Your task to perform on an android device: How much does a 2 bedroom apartment rent for in Washington DC? Image 0: 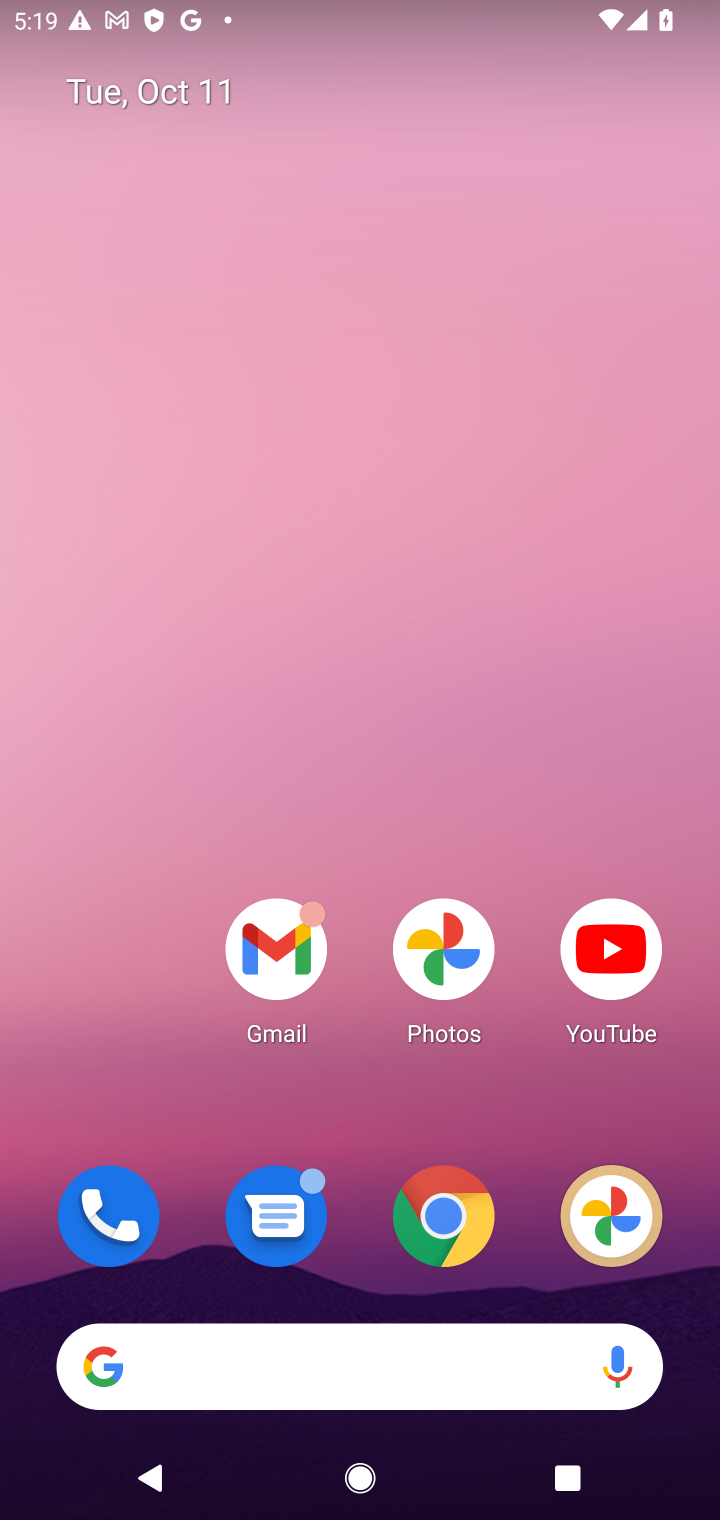
Step 0: click (450, 1222)
Your task to perform on an android device: How much does a 2 bedroom apartment rent for in Washington DC? Image 1: 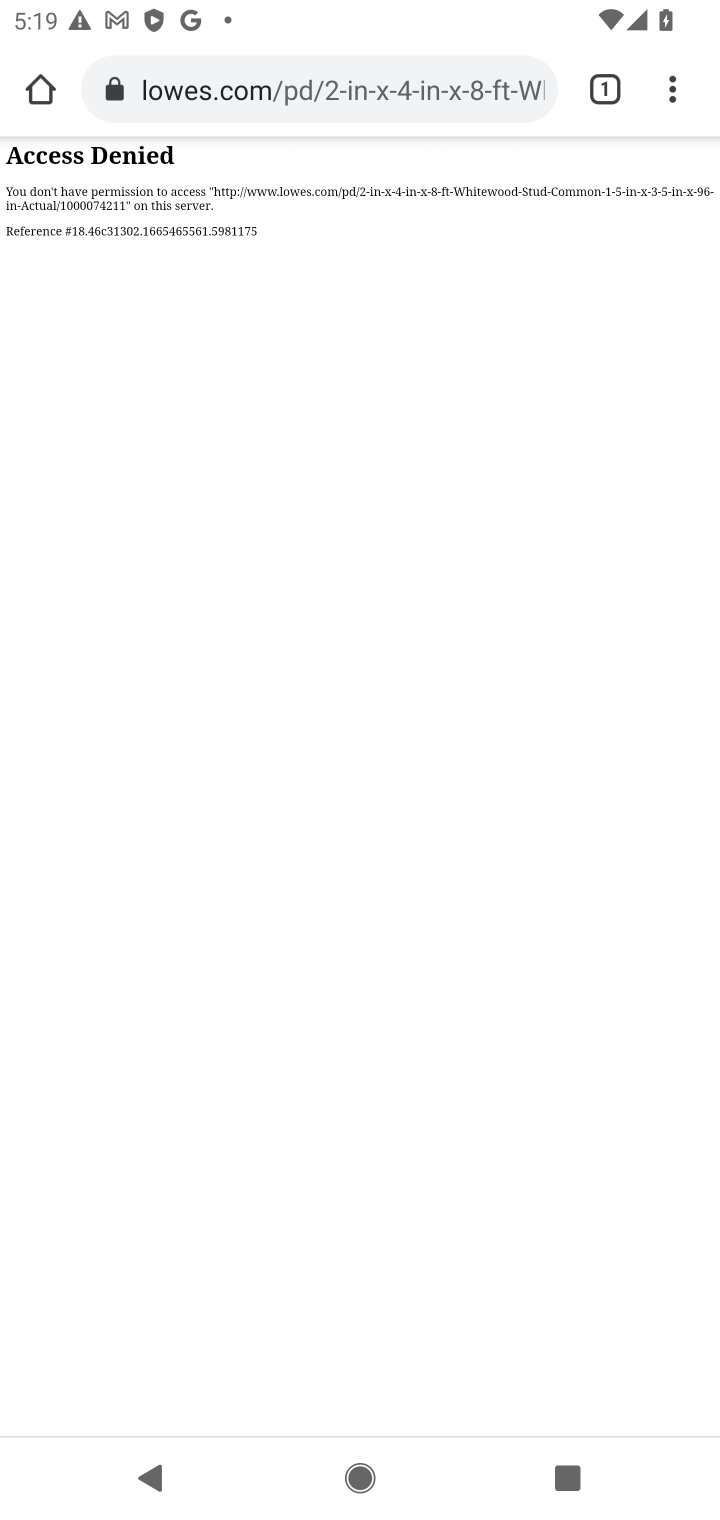
Step 1: click (366, 72)
Your task to perform on an android device: How much does a 2 bedroom apartment rent for in Washington DC? Image 2: 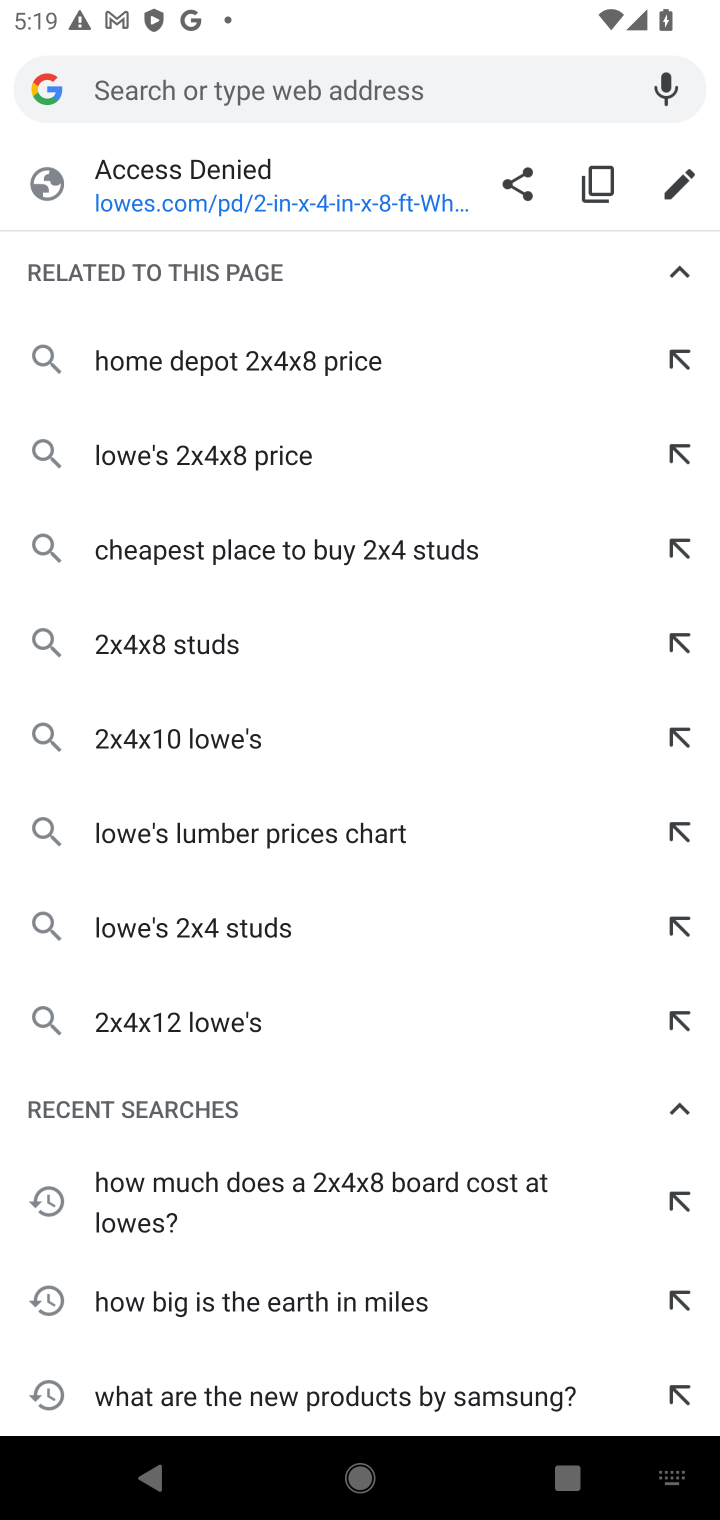
Step 2: press enter
Your task to perform on an android device: How much does a 2 bedroom apartment rent for in Washington DC? Image 3: 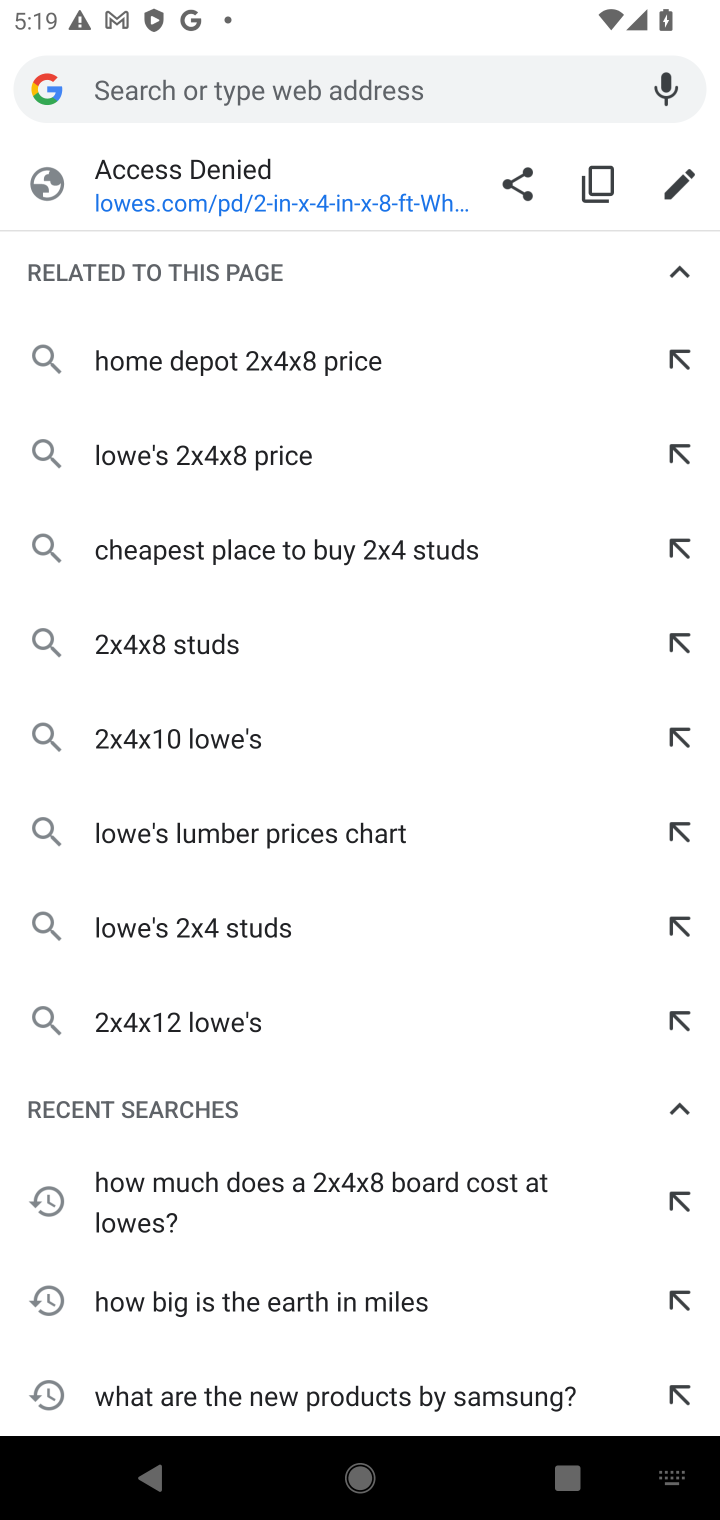
Step 3: type "How much does a 2 bedroom apartment rent for in Washington DC?"
Your task to perform on an android device: How much does a 2 bedroom apartment rent for in Washington DC? Image 4: 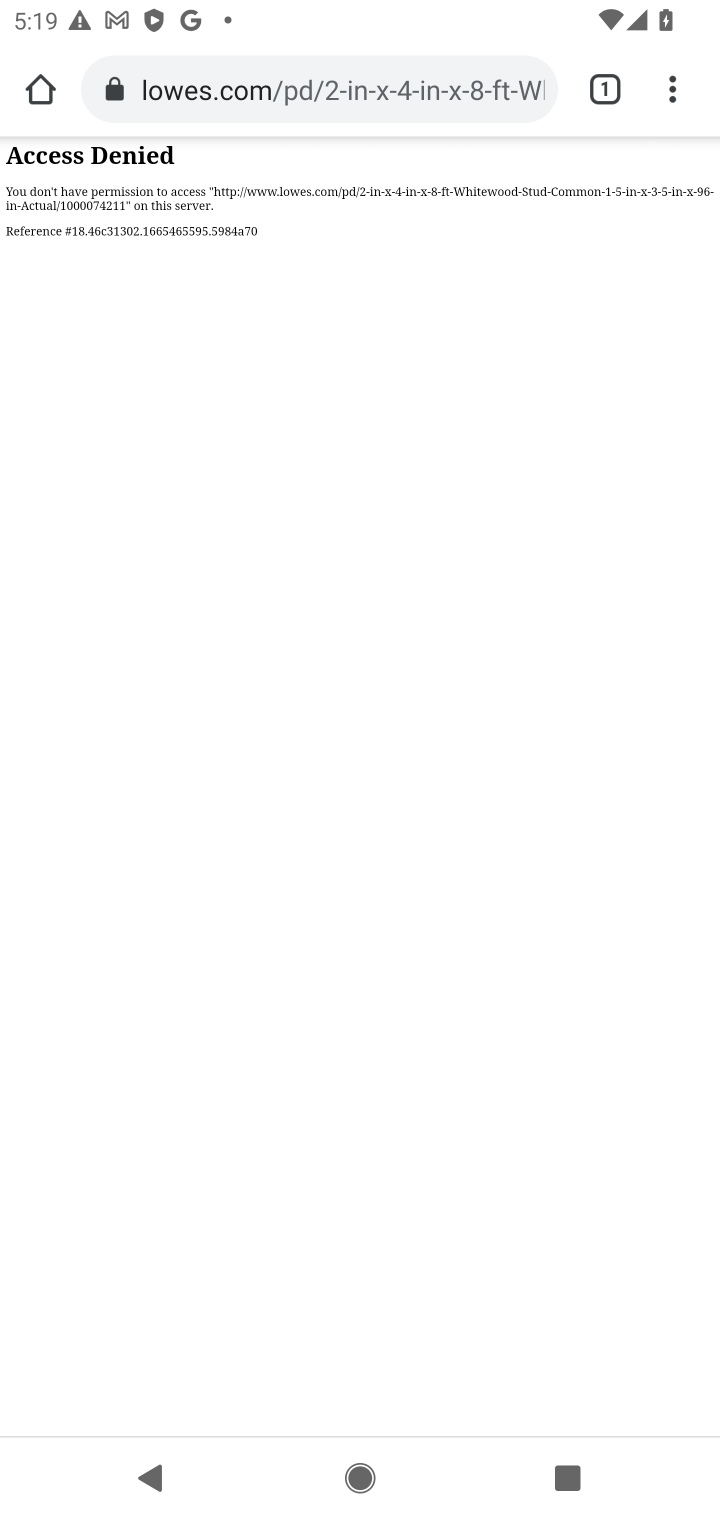
Step 4: type ""
Your task to perform on an android device: How much does a 2 bedroom apartment rent for in Washington DC? Image 5: 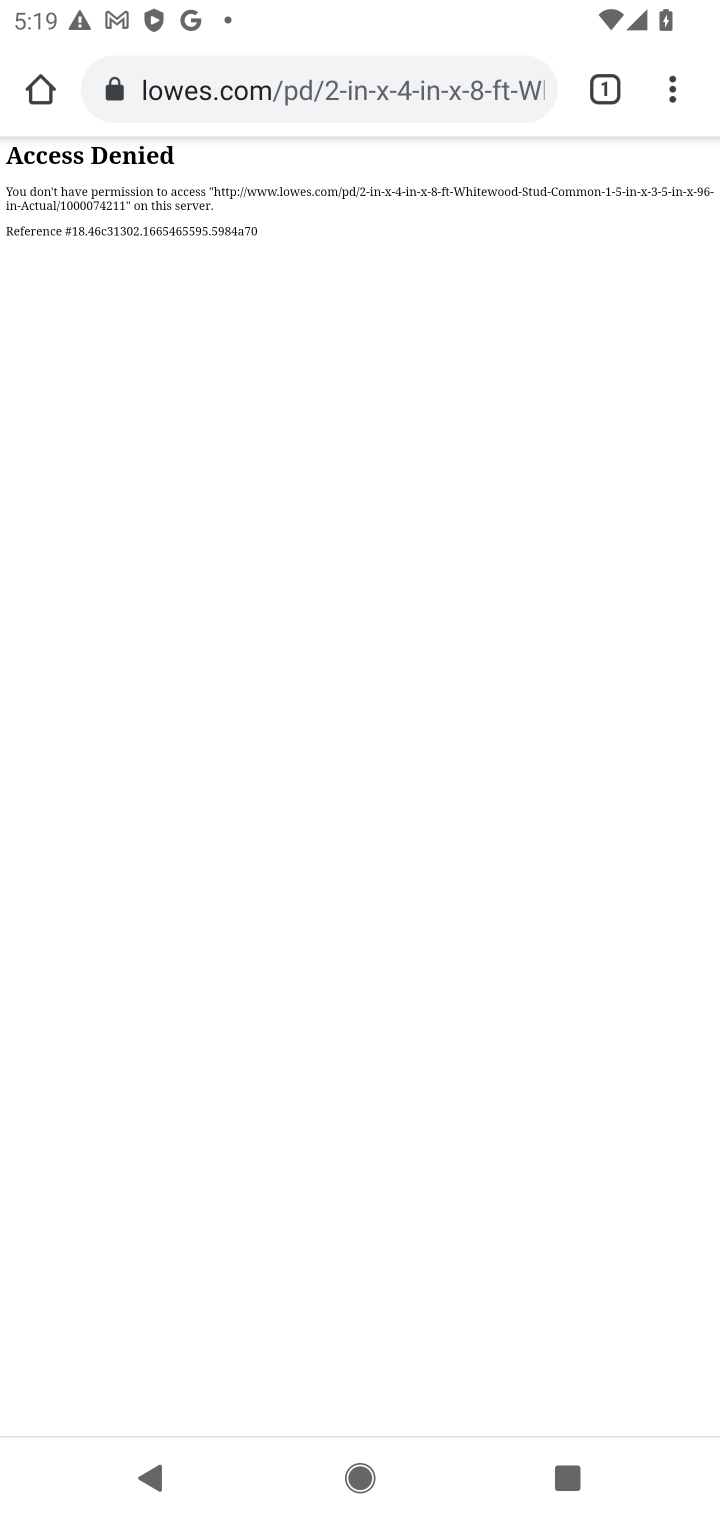
Step 5: click (484, 78)
Your task to perform on an android device: How much does a 2 bedroom apartment rent for in Washington DC? Image 6: 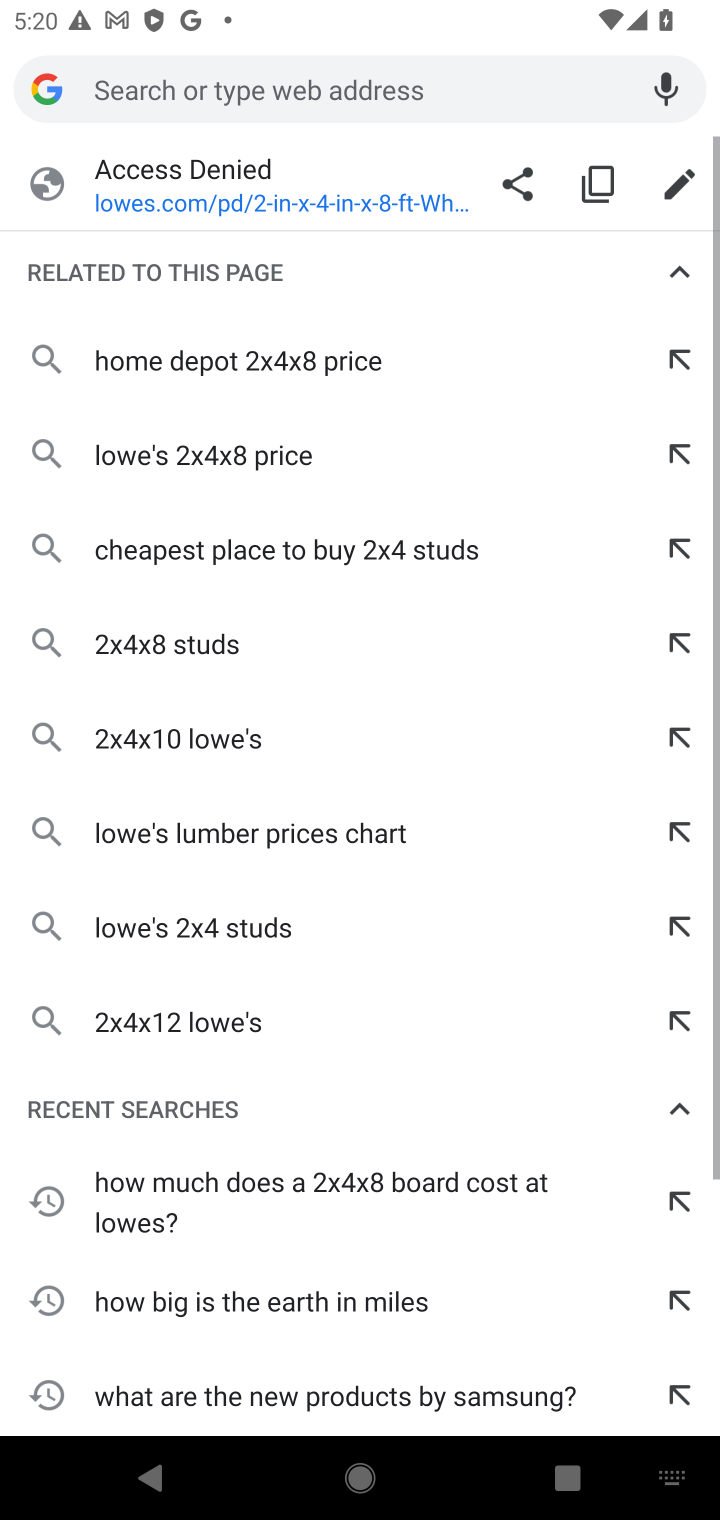
Step 6: type "How much does a 2 bedroom apartment rent for in Washington DC?"
Your task to perform on an android device: How much does a 2 bedroom apartment rent for in Washington DC? Image 7: 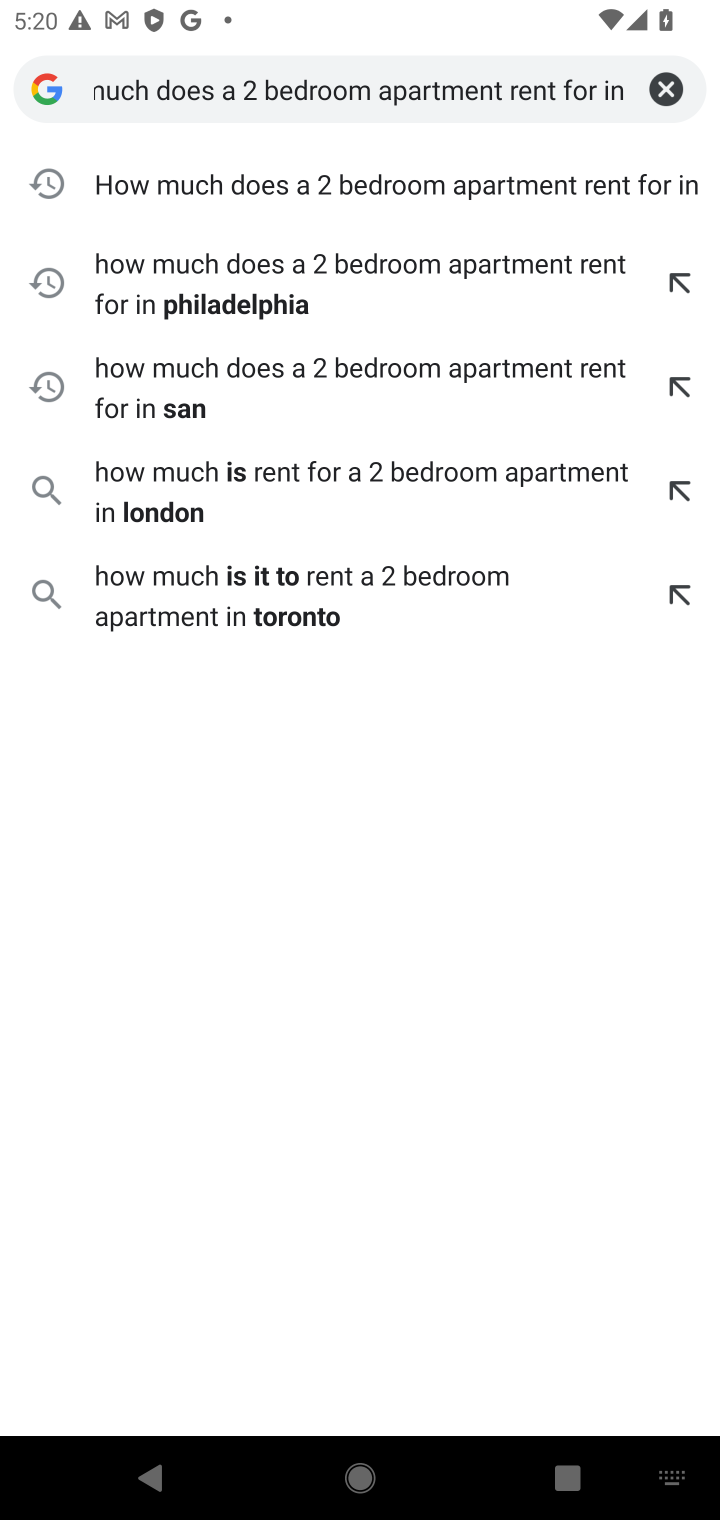
Step 7: press enter
Your task to perform on an android device: How much does a 2 bedroom apartment rent for in Washington DC? Image 8: 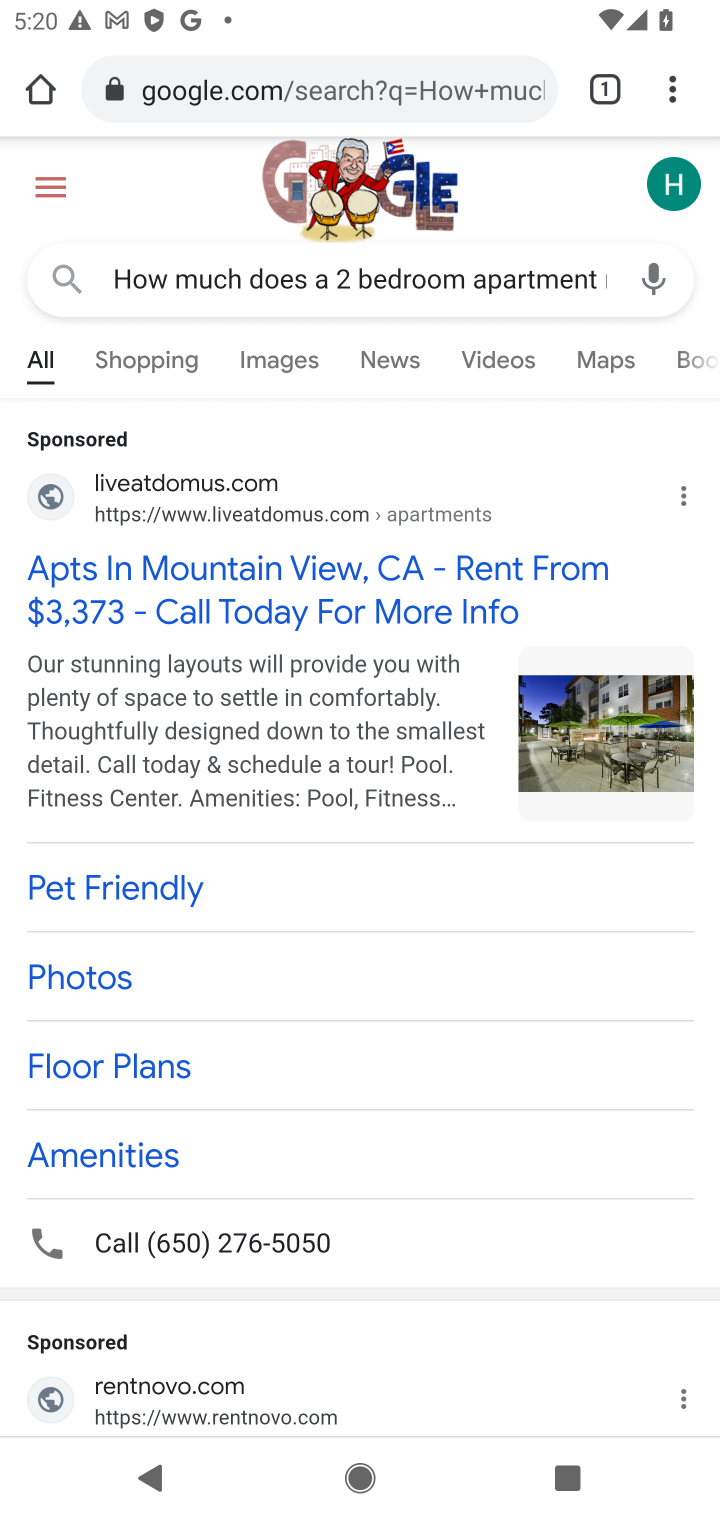
Step 8: drag from (423, 1300) to (400, 634)
Your task to perform on an android device: How much does a 2 bedroom apartment rent for in Washington DC? Image 9: 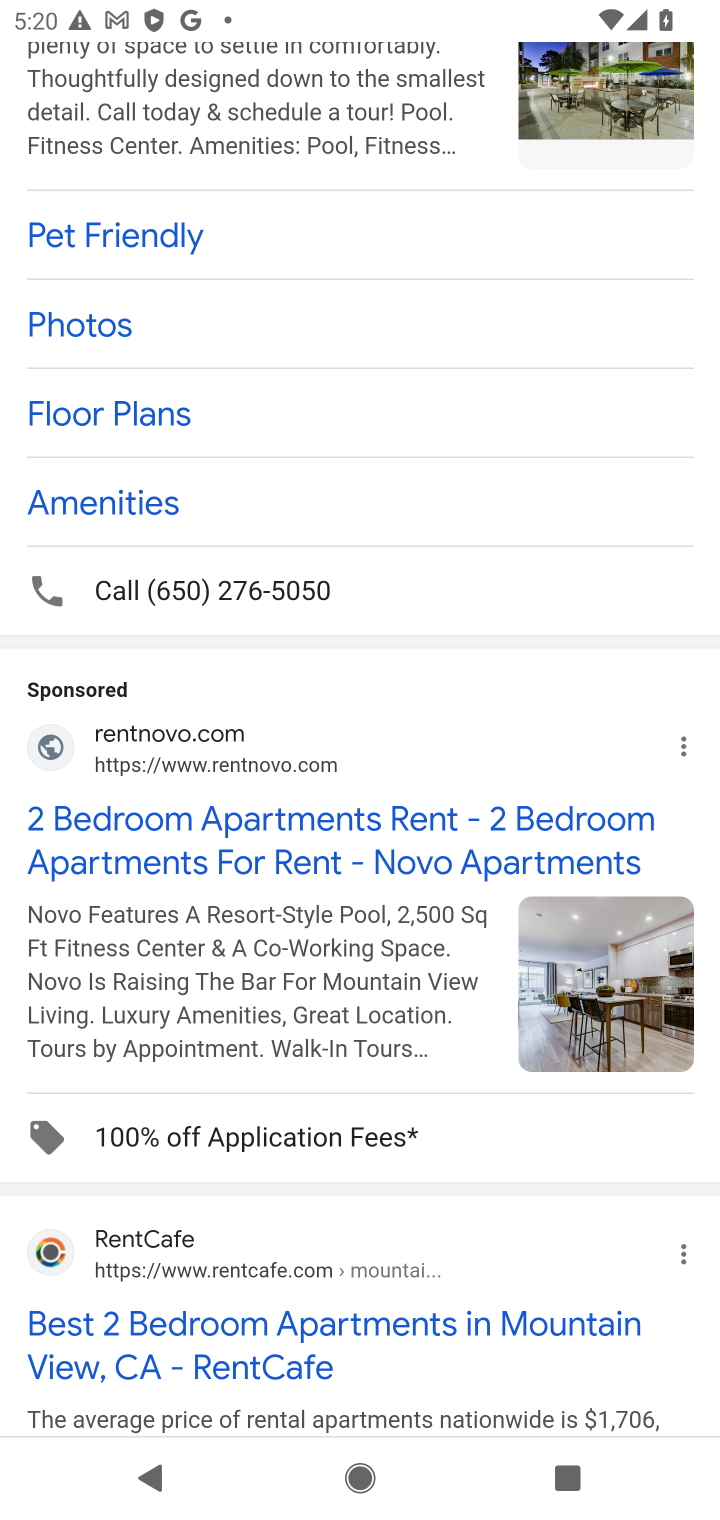
Step 9: drag from (426, 1247) to (376, 513)
Your task to perform on an android device: How much does a 2 bedroom apartment rent for in Washington DC? Image 10: 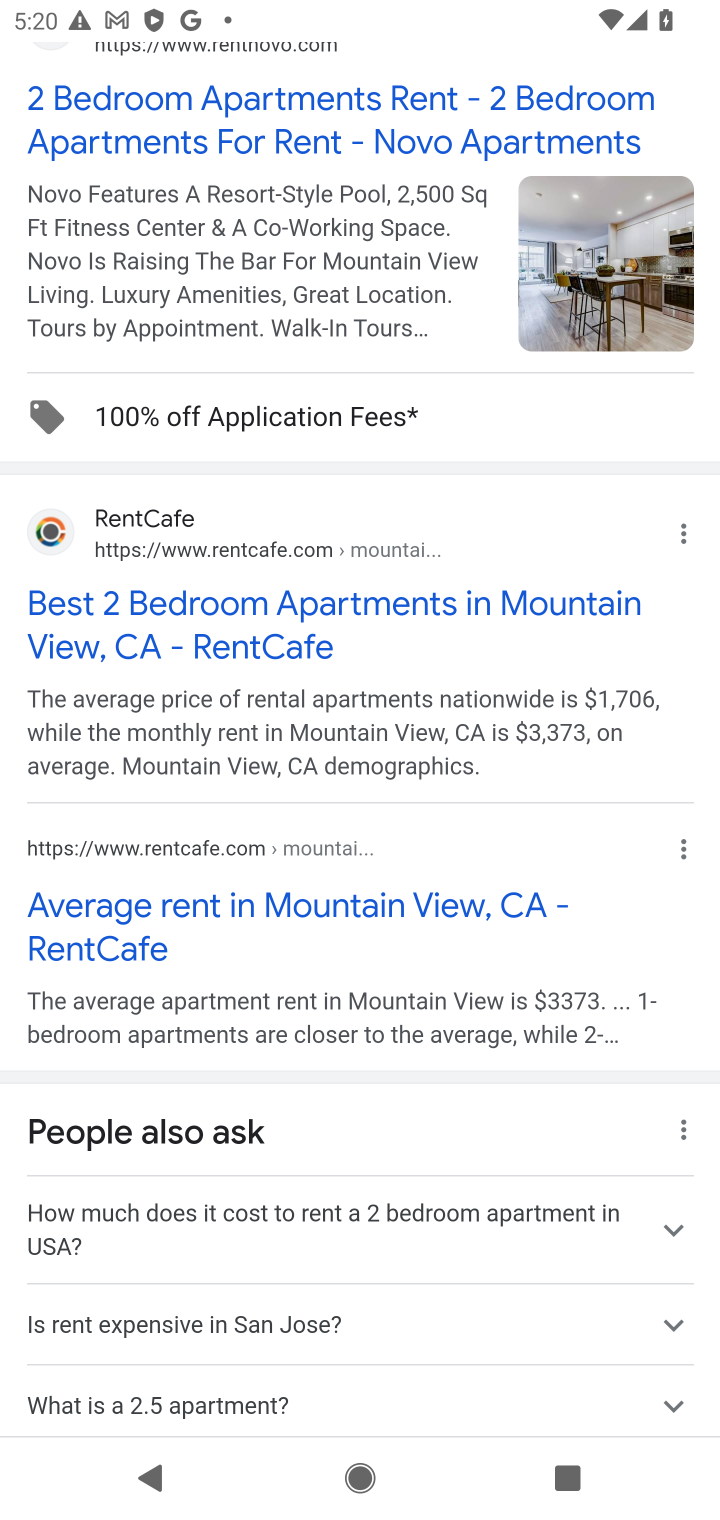
Step 10: click (236, 629)
Your task to perform on an android device: How much does a 2 bedroom apartment rent for in Washington DC? Image 11: 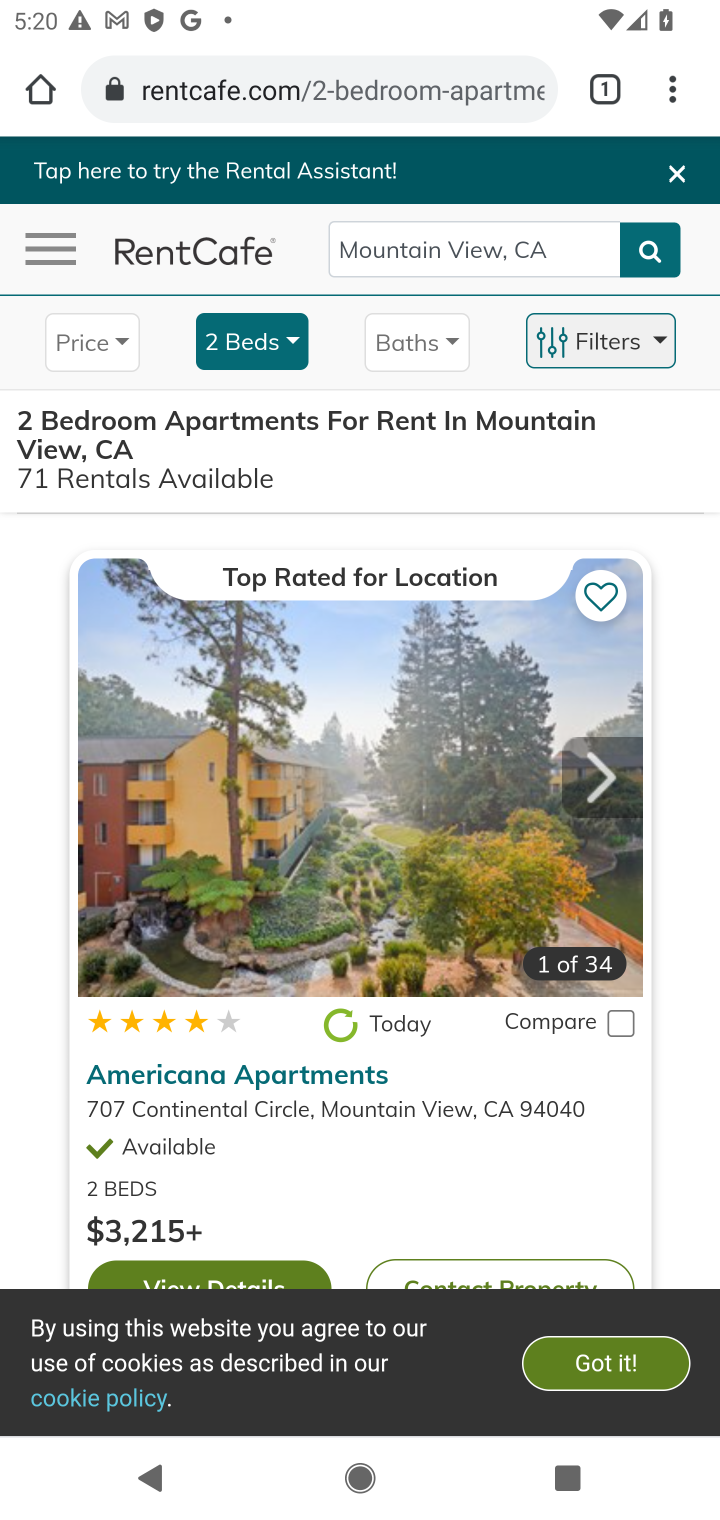
Step 11: task complete